Your task to perform on an android device: Search for sushi restaurants on Maps Image 0: 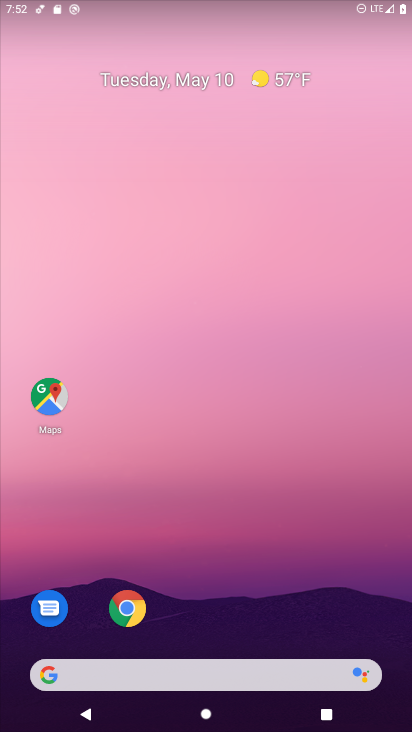
Step 0: drag from (359, 611) to (248, 65)
Your task to perform on an android device: Search for sushi restaurants on Maps Image 1: 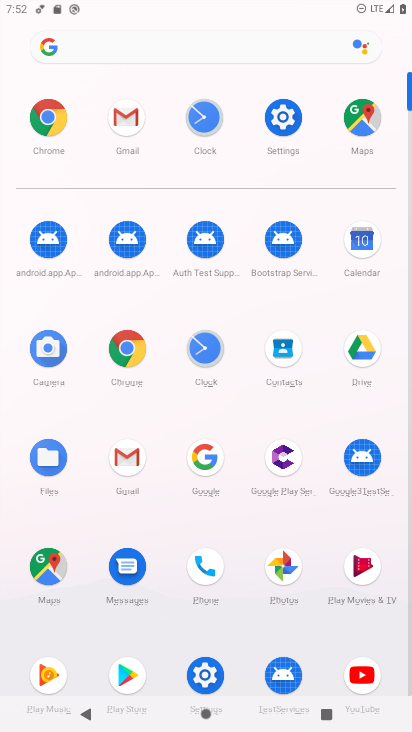
Step 1: click (360, 125)
Your task to perform on an android device: Search for sushi restaurants on Maps Image 2: 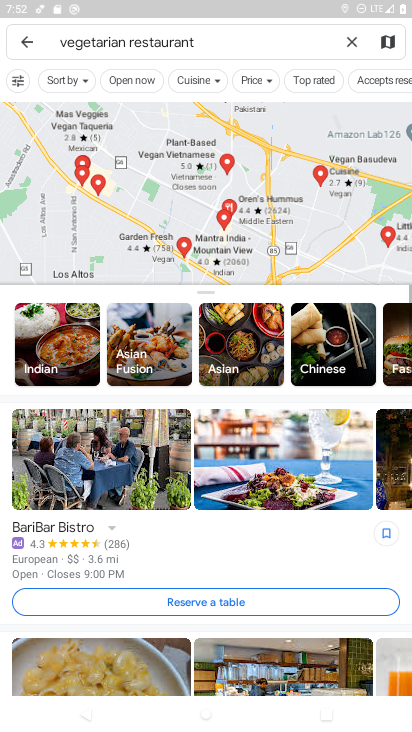
Step 2: click (348, 46)
Your task to perform on an android device: Search for sushi restaurants on Maps Image 3: 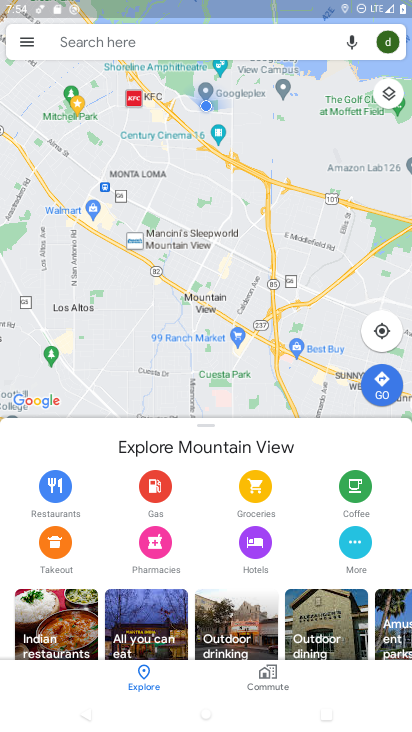
Step 3: click (146, 42)
Your task to perform on an android device: Search for sushi restaurants on Maps Image 4: 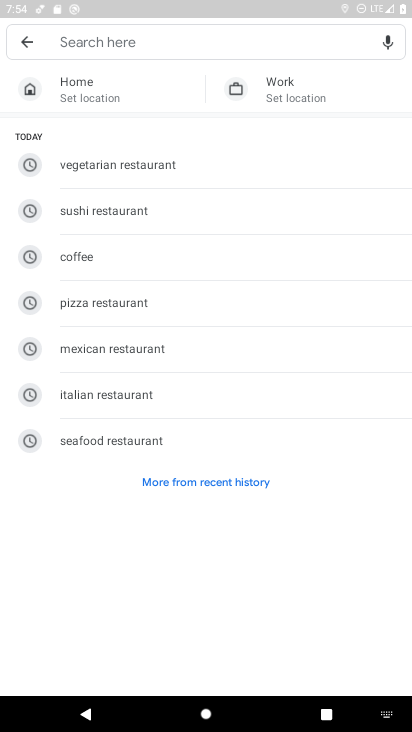
Step 4: click (155, 200)
Your task to perform on an android device: Search for sushi restaurants on Maps Image 5: 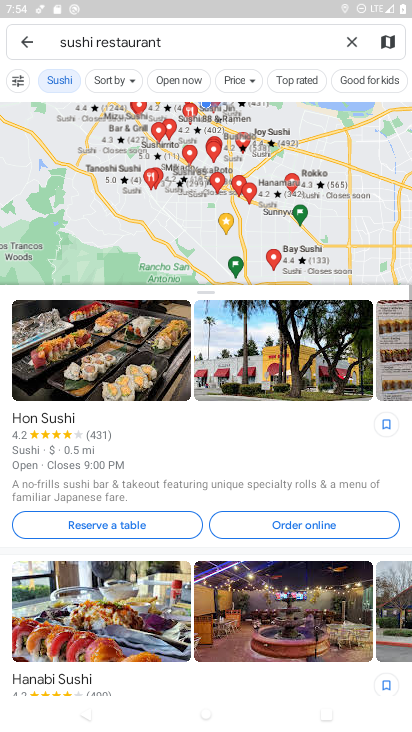
Step 5: task complete